Your task to perform on an android device: Open settings Image 0: 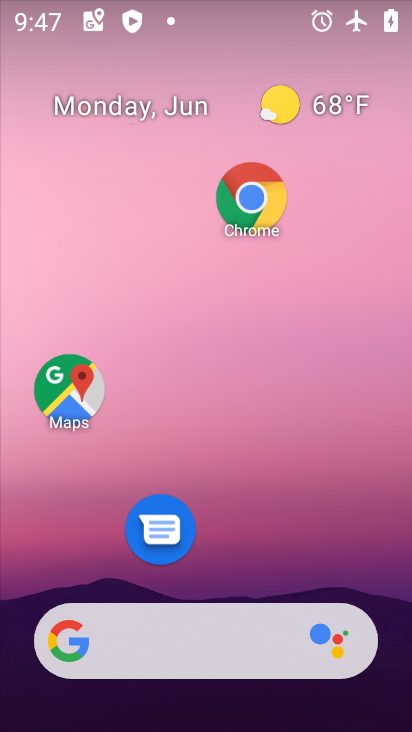
Step 0: drag from (213, 567) to (214, 81)
Your task to perform on an android device: Open settings Image 1: 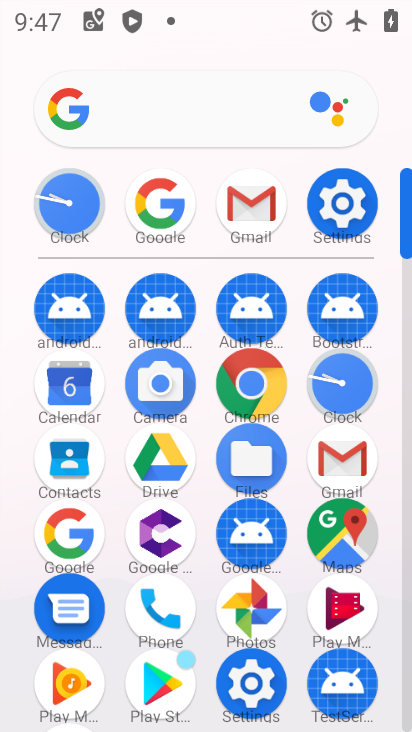
Step 1: click (331, 176)
Your task to perform on an android device: Open settings Image 2: 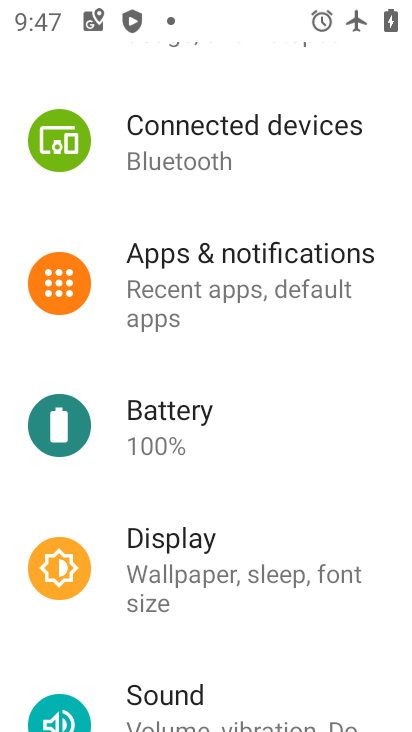
Step 2: task complete